Your task to perform on an android device: Go to notification settings Image 0: 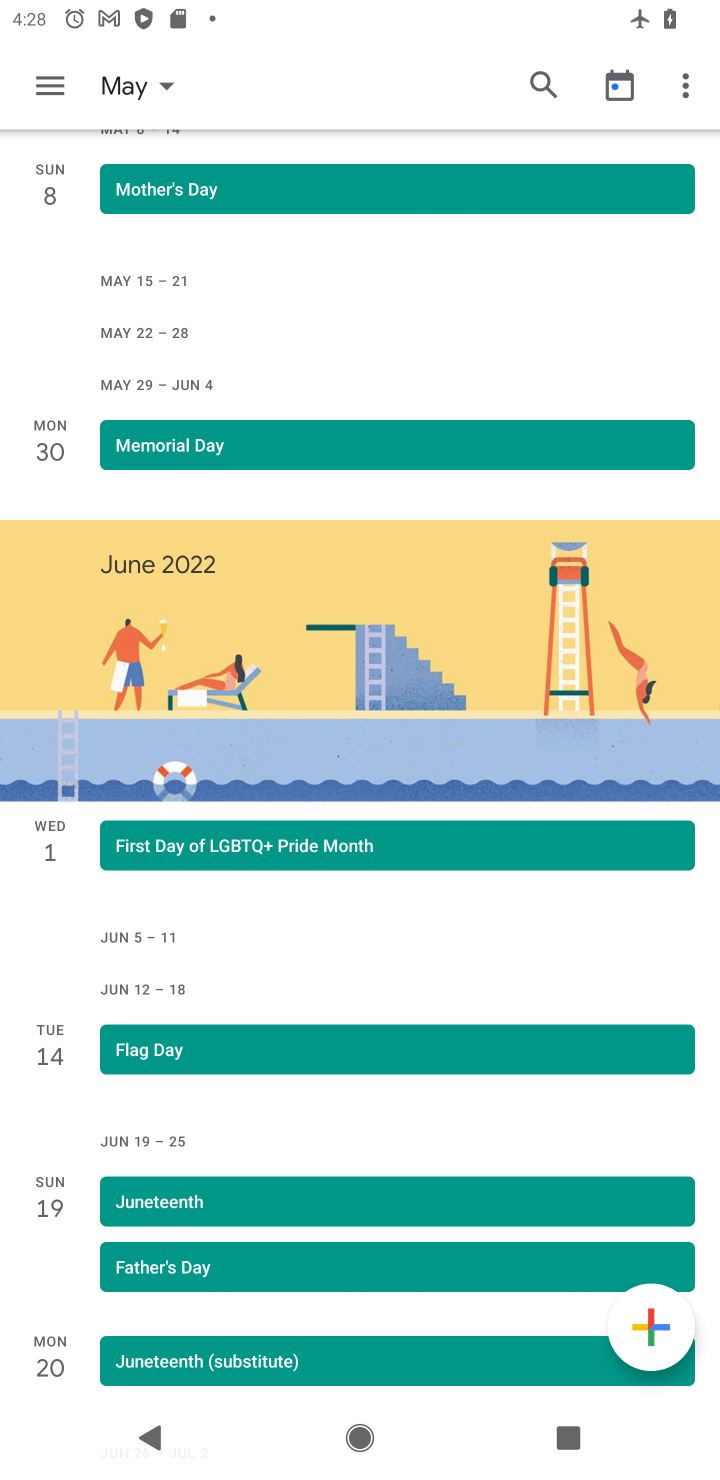
Step 0: press home button
Your task to perform on an android device: Go to notification settings Image 1: 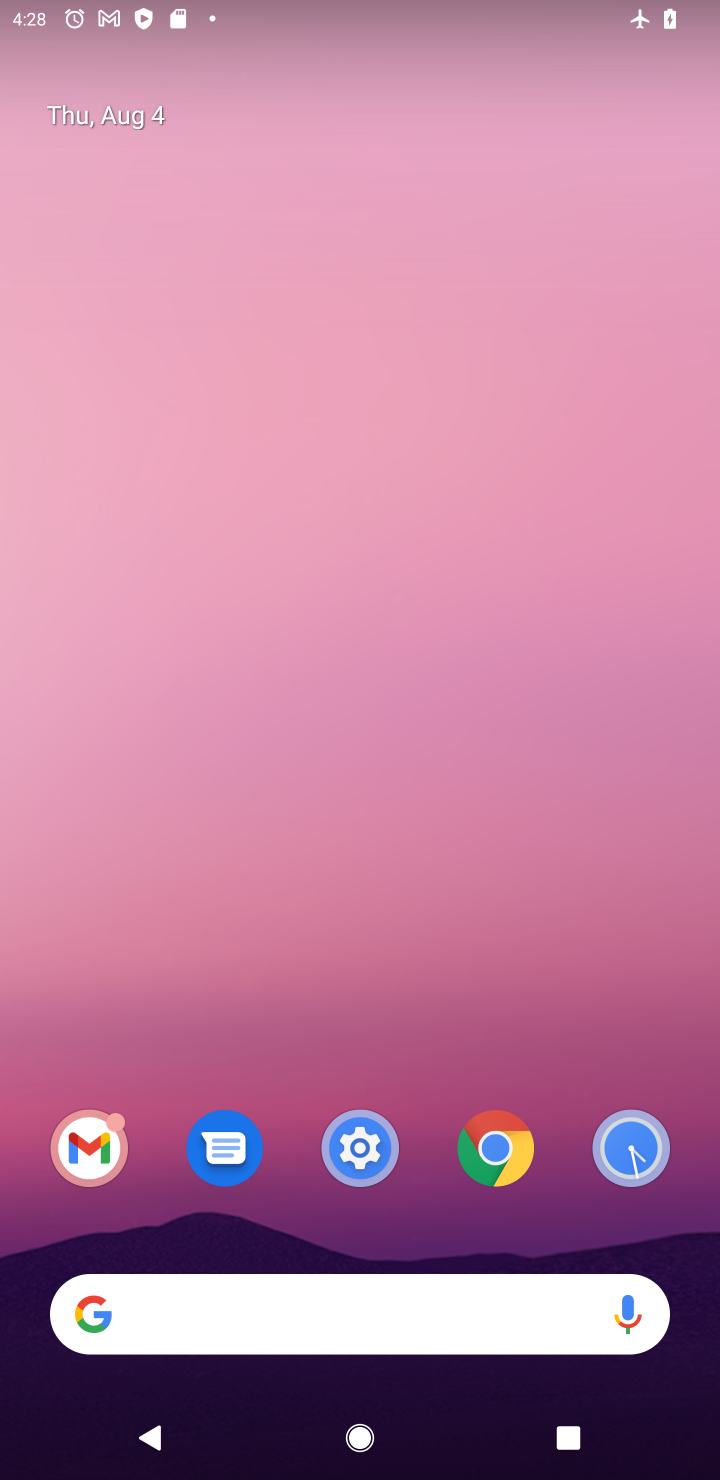
Step 1: click (356, 1147)
Your task to perform on an android device: Go to notification settings Image 2: 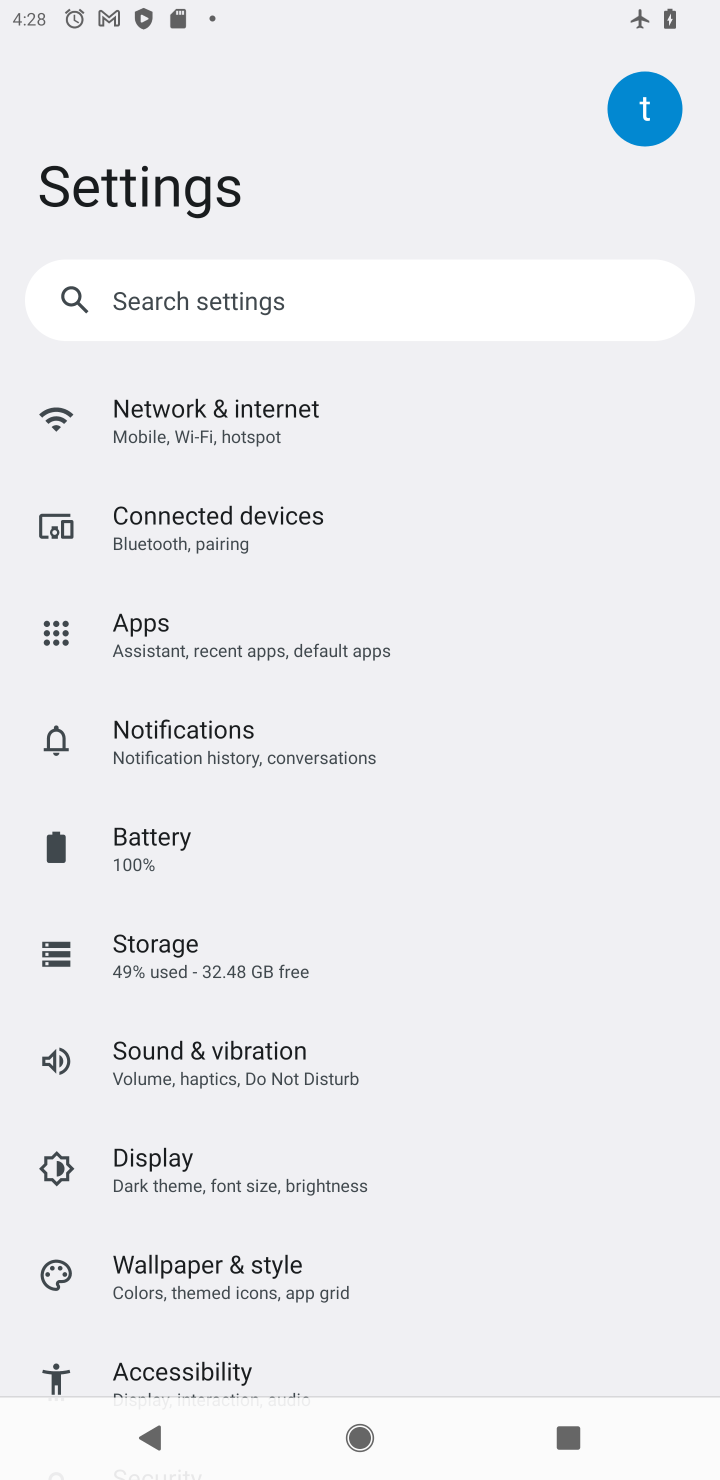
Step 2: click (155, 724)
Your task to perform on an android device: Go to notification settings Image 3: 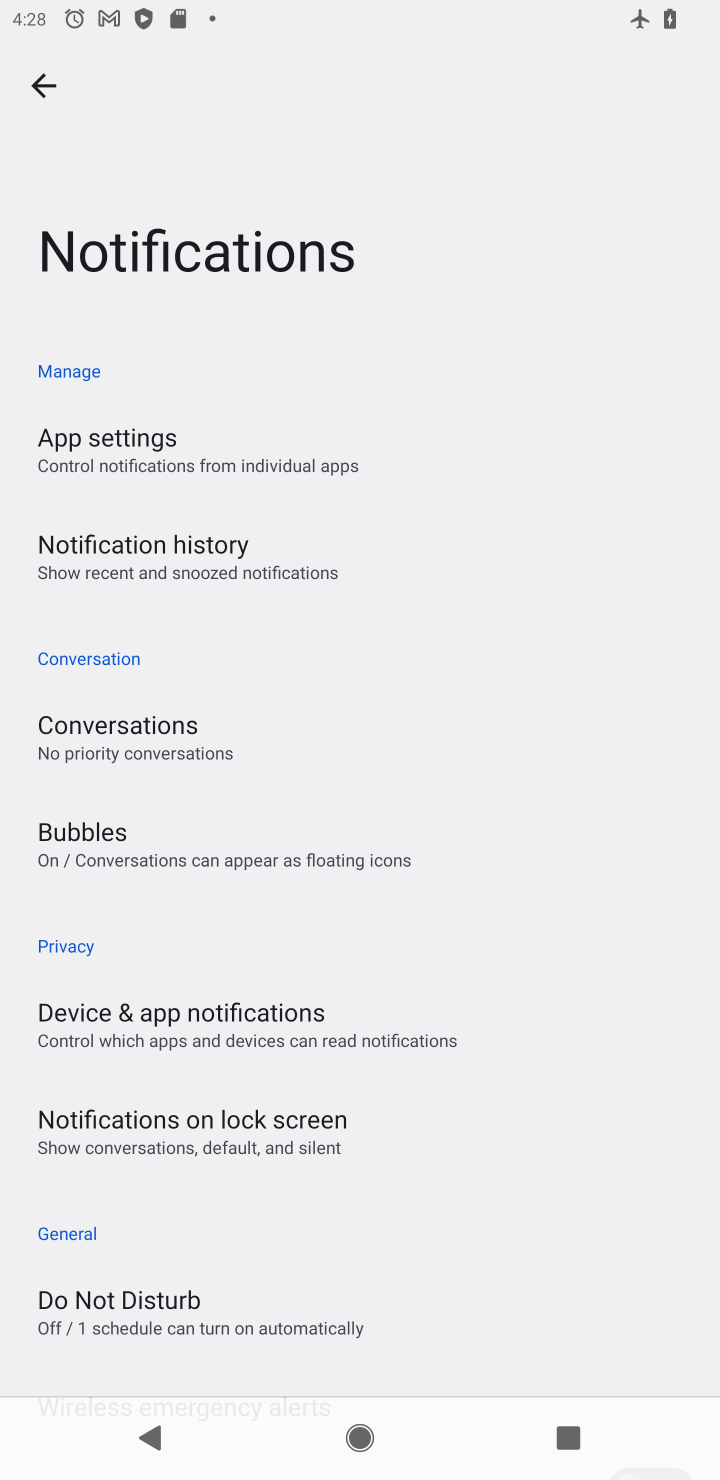
Step 3: task complete